Your task to perform on an android device: What's the weather going to be tomorrow? Image 0: 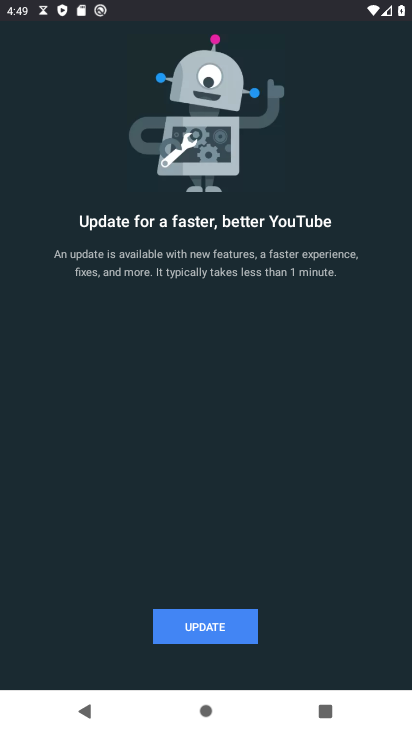
Step 0: press home button
Your task to perform on an android device: What's the weather going to be tomorrow? Image 1: 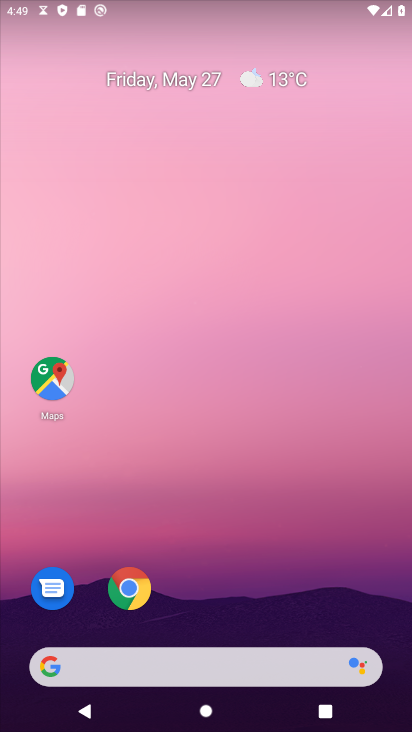
Step 1: drag from (251, 81) to (357, 81)
Your task to perform on an android device: What's the weather going to be tomorrow? Image 2: 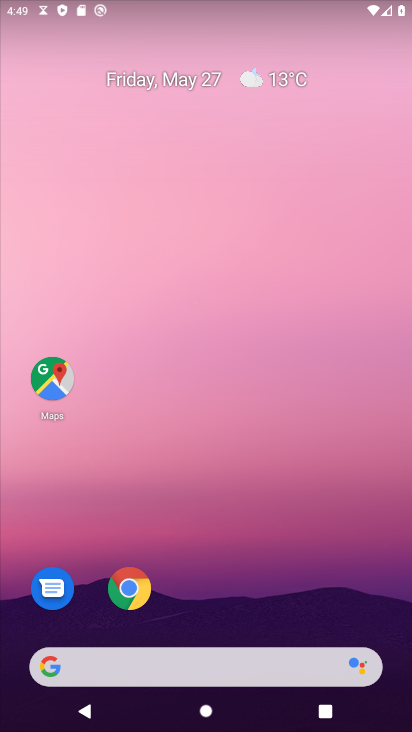
Step 2: click (173, 659)
Your task to perform on an android device: What's the weather going to be tomorrow? Image 3: 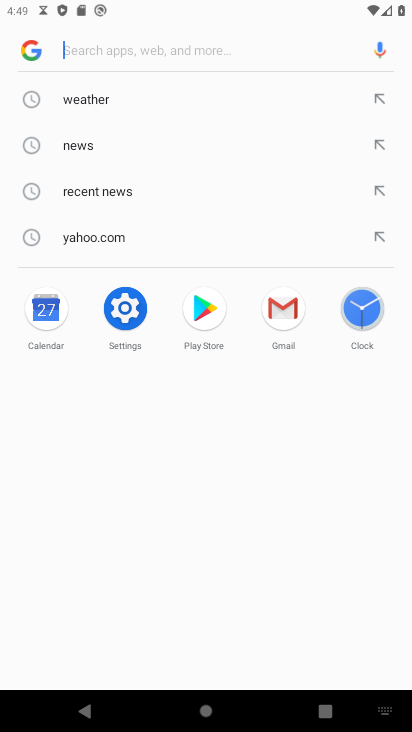
Step 3: click (76, 99)
Your task to perform on an android device: What's the weather going to be tomorrow? Image 4: 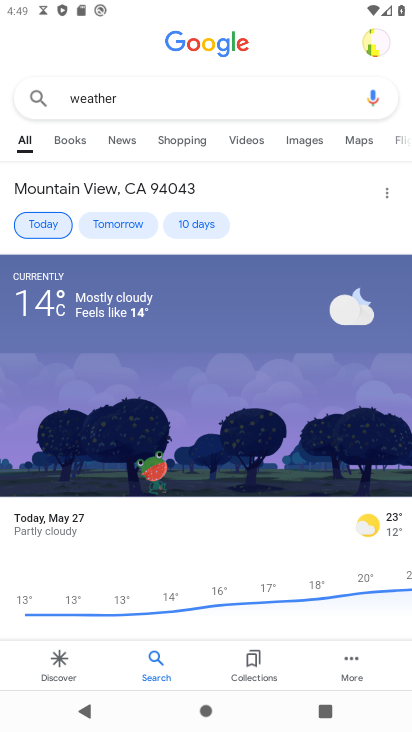
Step 4: click (112, 233)
Your task to perform on an android device: What's the weather going to be tomorrow? Image 5: 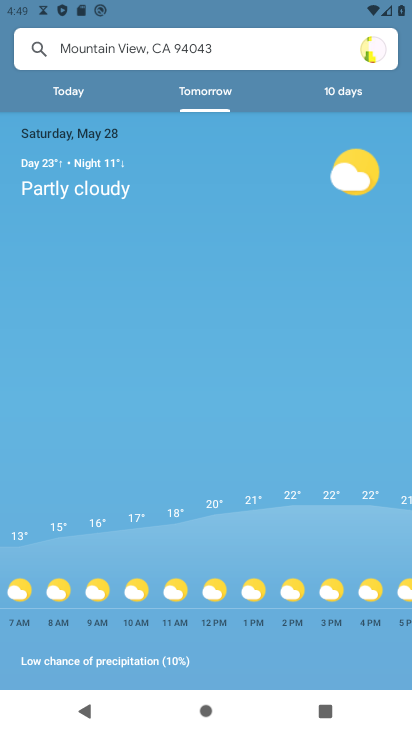
Step 5: task complete